Your task to perform on an android device: Search for sushi restaurants on Maps Image 0: 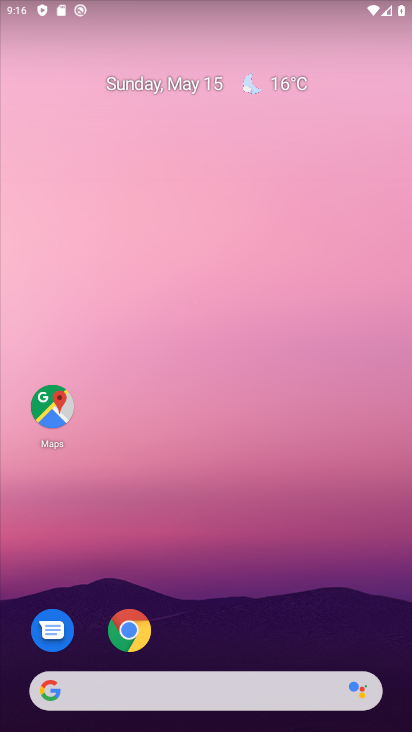
Step 0: click (58, 408)
Your task to perform on an android device: Search for sushi restaurants on Maps Image 1: 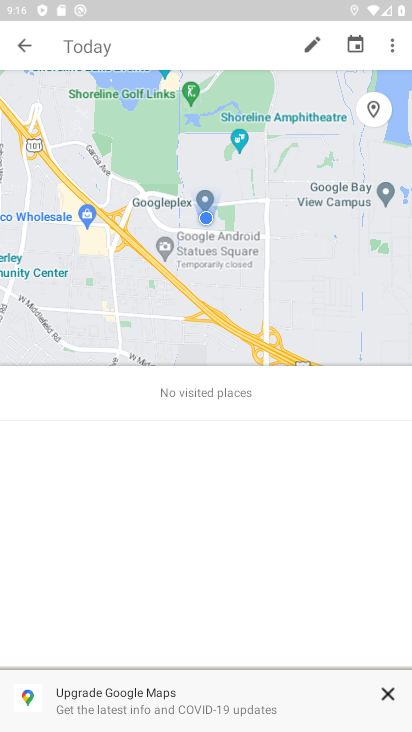
Step 1: click (20, 50)
Your task to perform on an android device: Search for sushi restaurants on Maps Image 2: 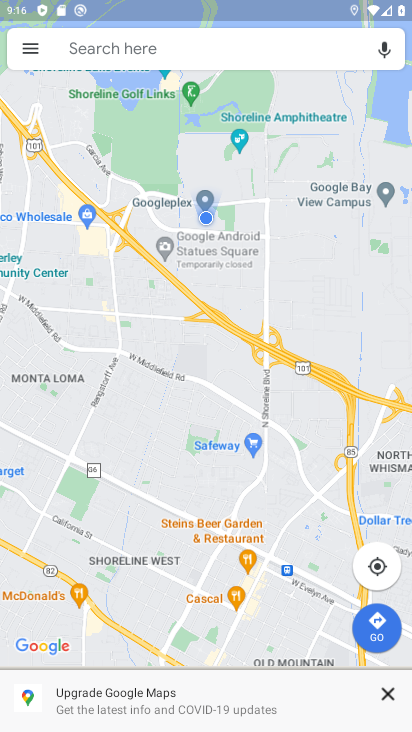
Step 2: click (202, 59)
Your task to perform on an android device: Search for sushi restaurants on Maps Image 3: 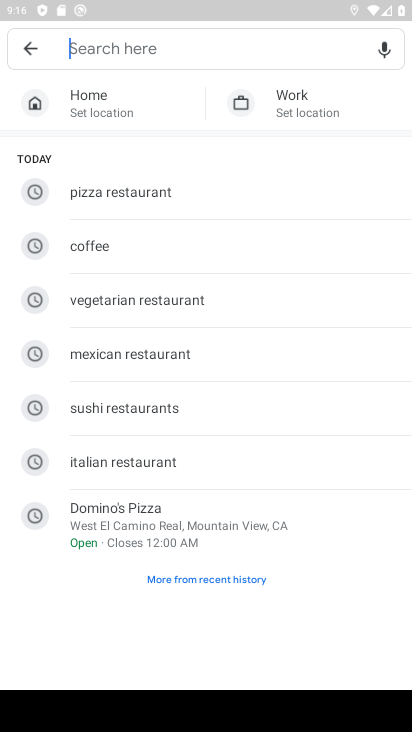
Step 3: click (170, 414)
Your task to perform on an android device: Search for sushi restaurants on Maps Image 4: 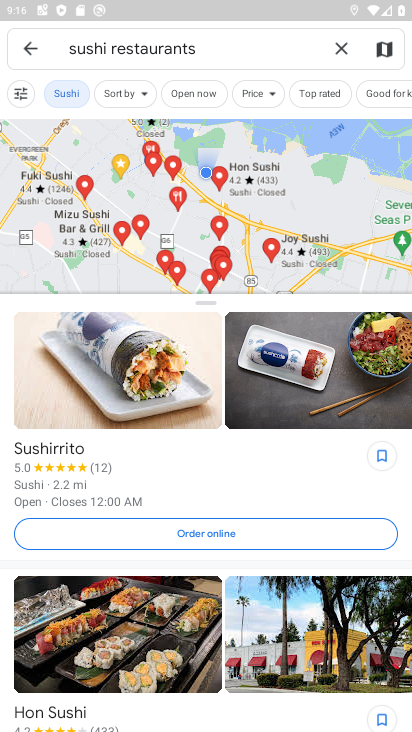
Step 4: task complete